Your task to perform on an android device: Open calendar and show me the third week of next month Image 0: 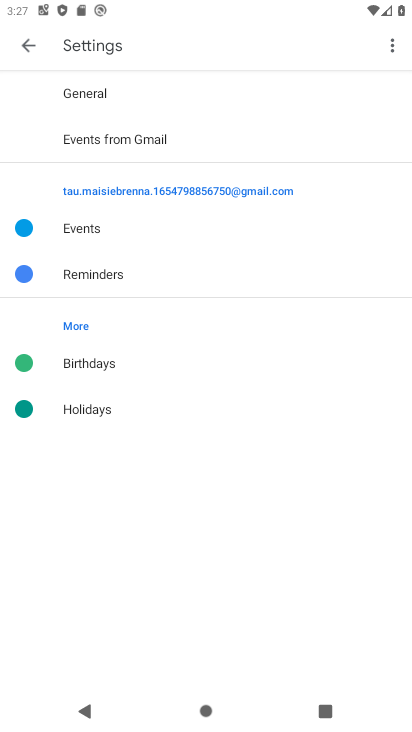
Step 0: press home button
Your task to perform on an android device: Open calendar and show me the third week of next month Image 1: 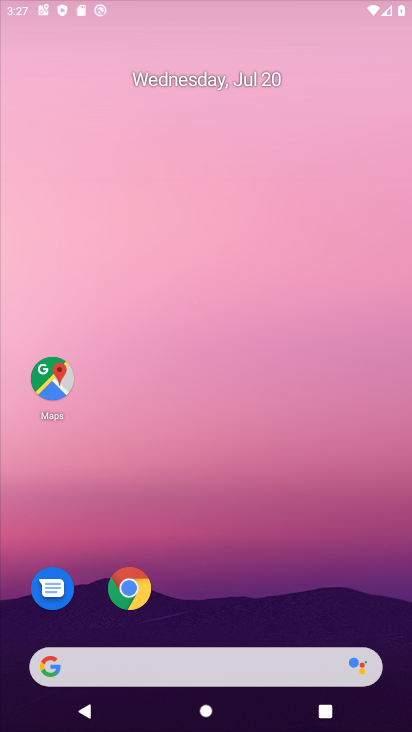
Step 1: drag from (295, 648) to (287, 120)
Your task to perform on an android device: Open calendar and show me the third week of next month Image 2: 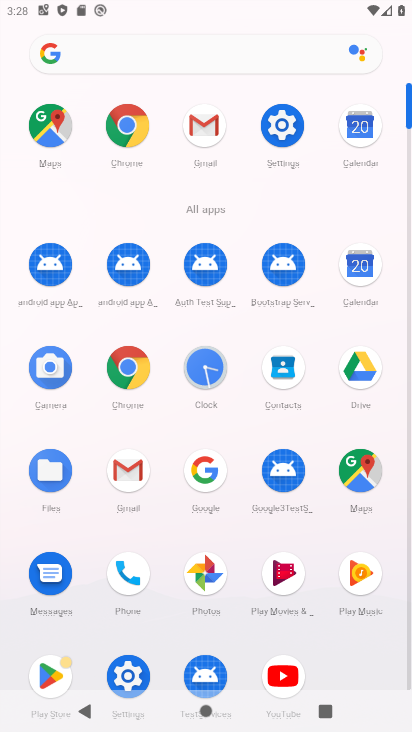
Step 2: click (368, 259)
Your task to perform on an android device: Open calendar and show me the third week of next month Image 3: 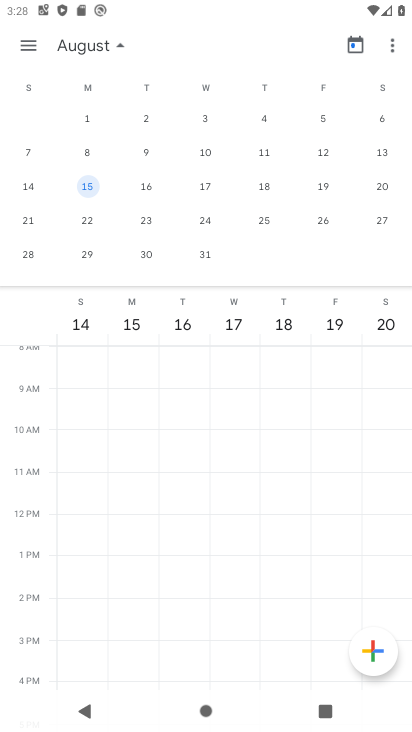
Step 3: click (269, 184)
Your task to perform on an android device: Open calendar and show me the third week of next month Image 4: 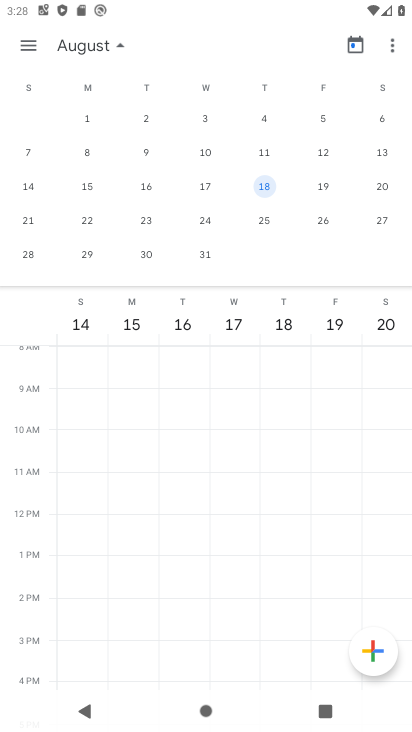
Step 4: task complete